Your task to perform on an android device: Open notification settings Image 0: 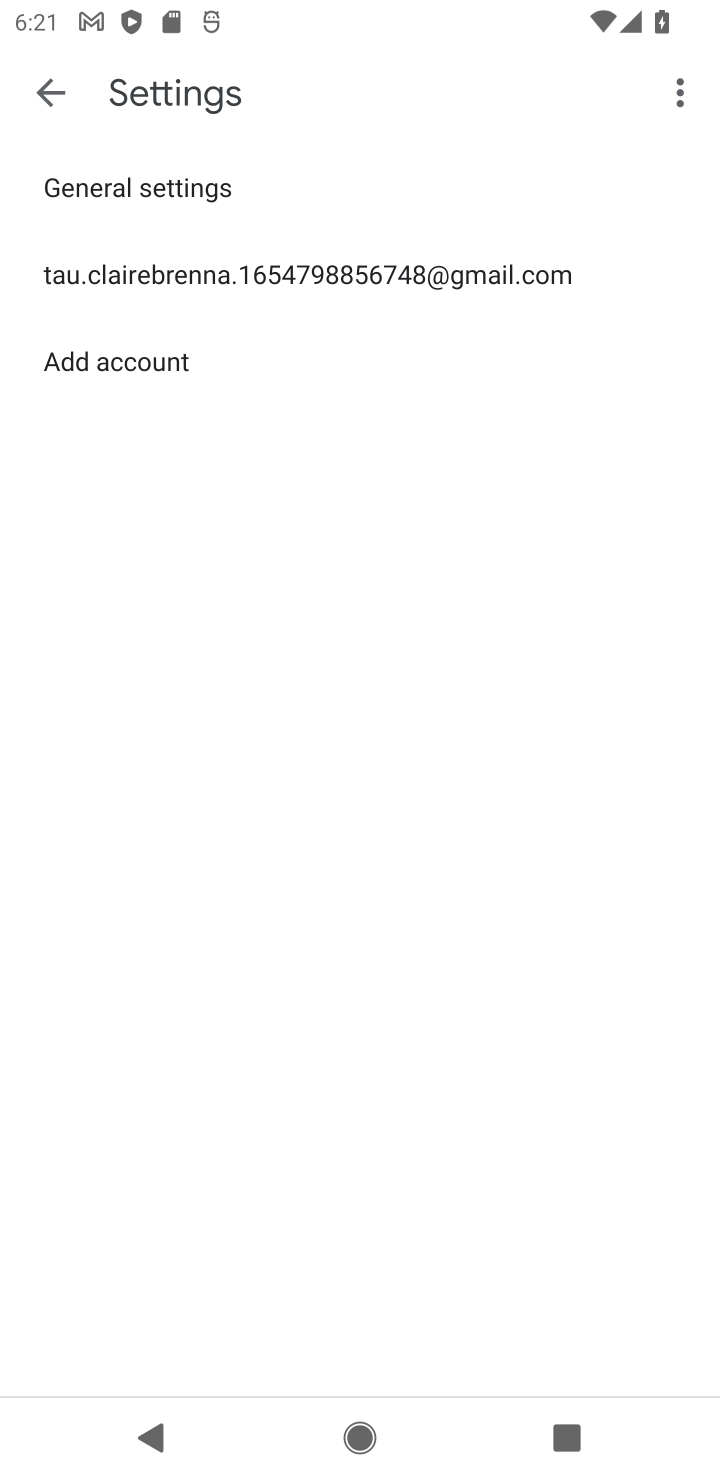
Step 0: press home button
Your task to perform on an android device: Open notification settings Image 1: 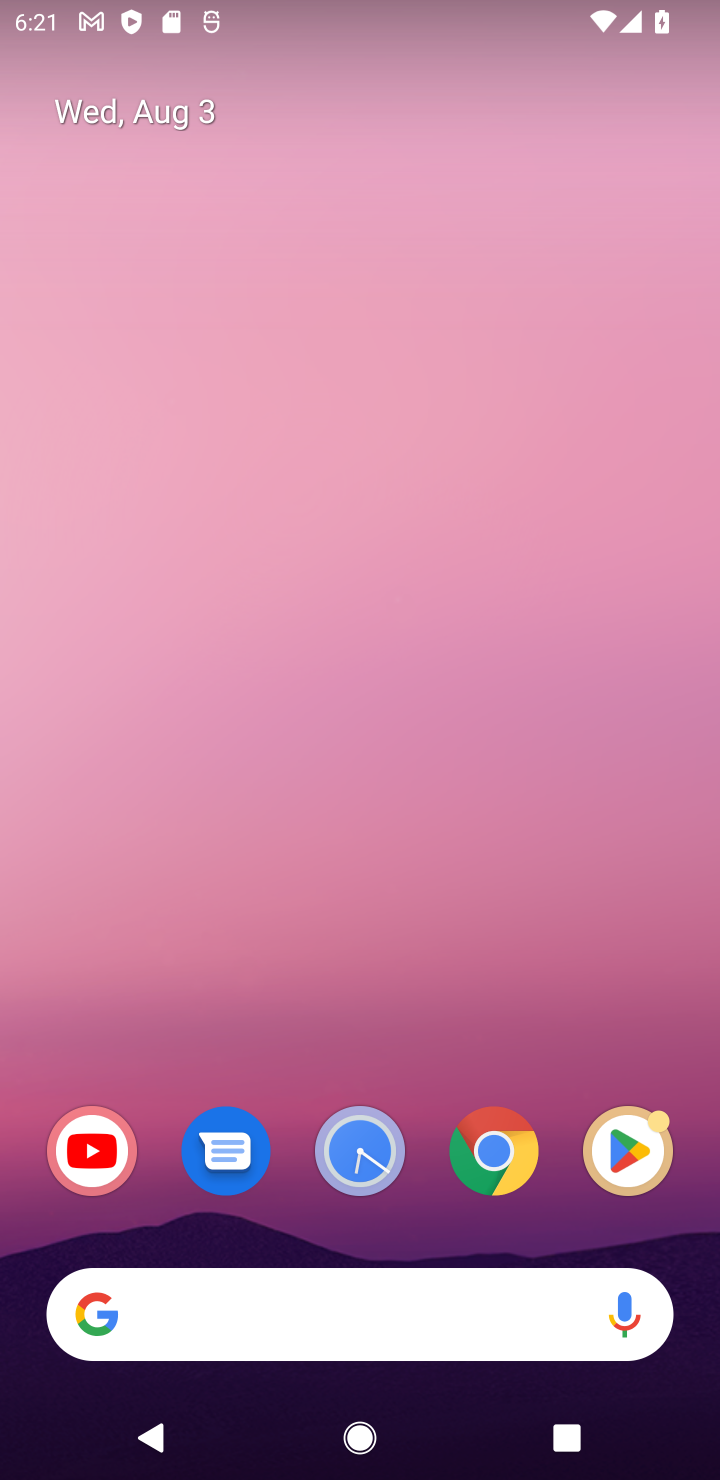
Step 1: drag from (579, 981) to (445, 80)
Your task to perform on an android device: Open notification settings Image 2: 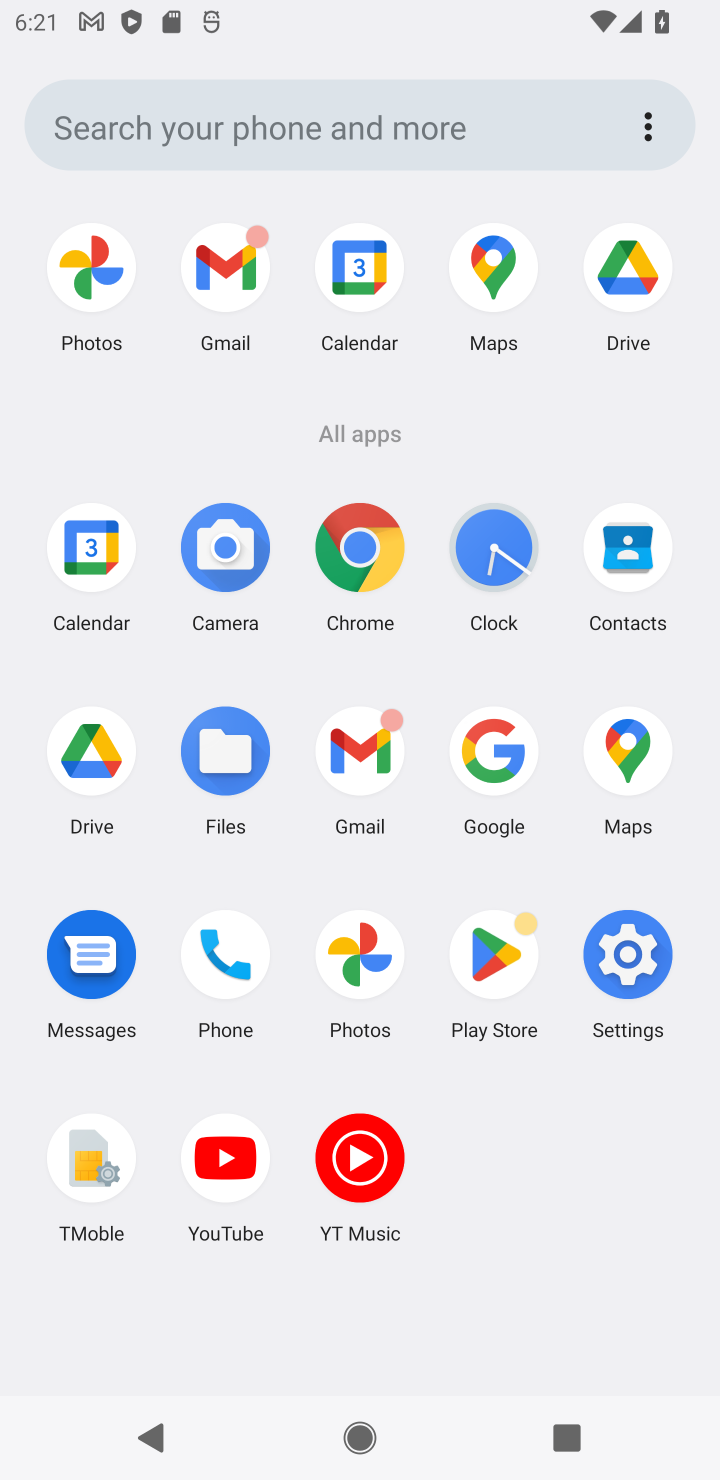
Step 2: click (649, 939)
Your task to perform on an android device: Open notification settings Image 3: 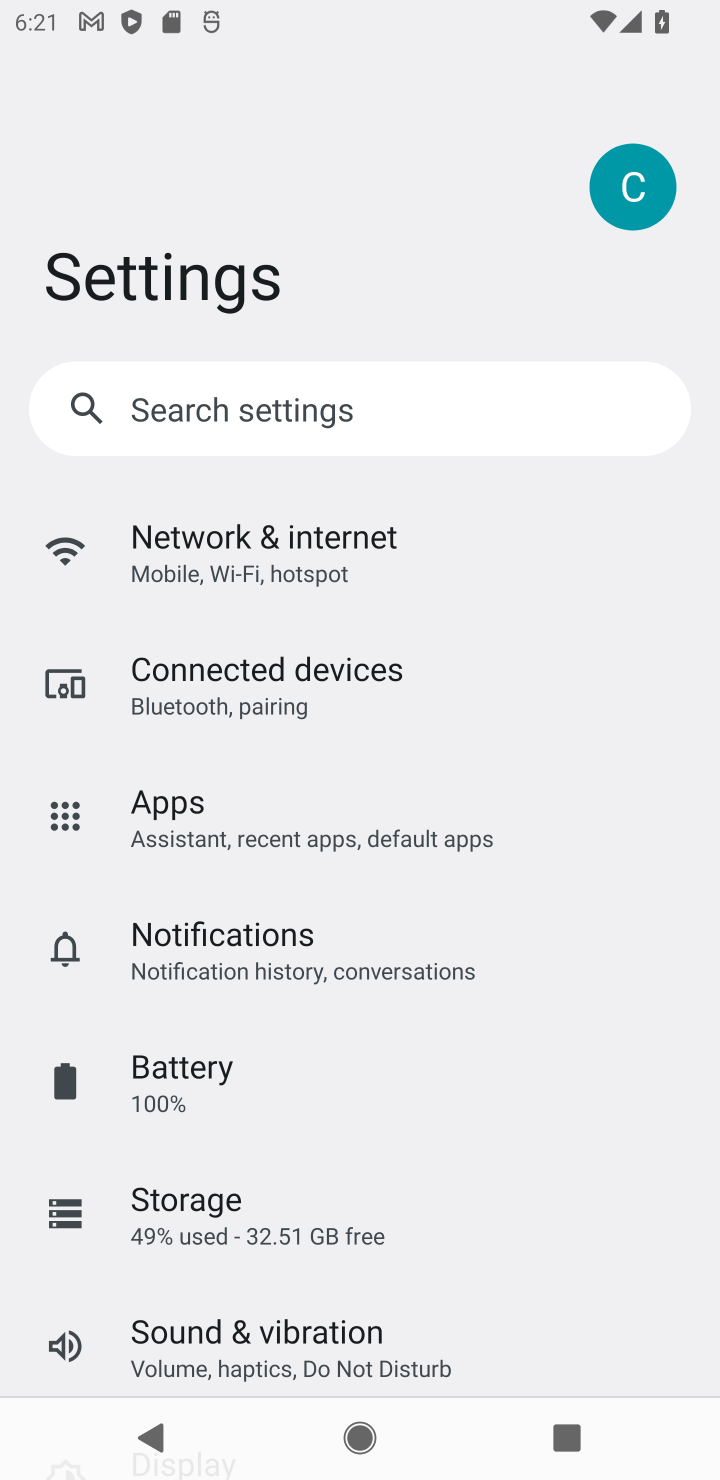
Step 3: click (211, 942)
Your task to perform on an android device: Open notification settings Image 4: 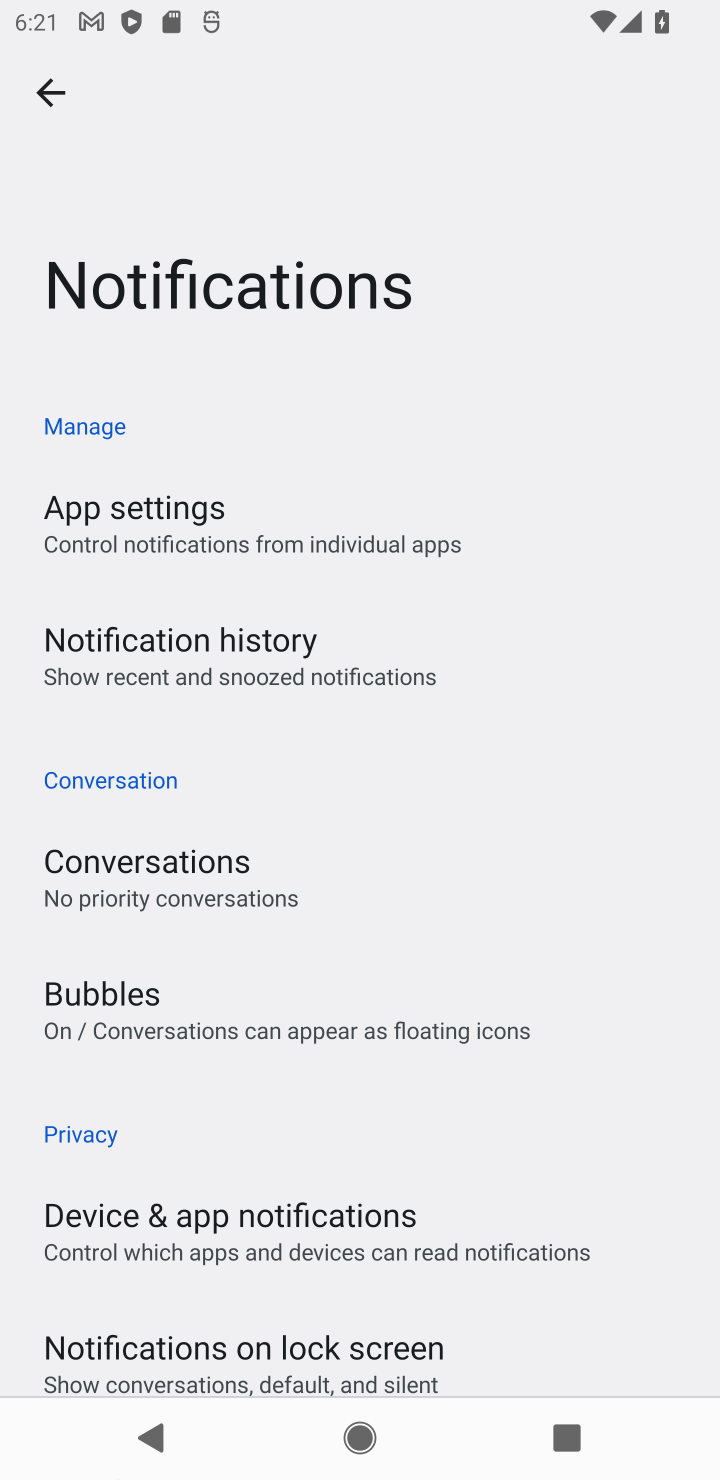
Step 4: drag from (292, 1143) to (213, 541)
Your task to perform on an android device: Open notification settings Image 5: 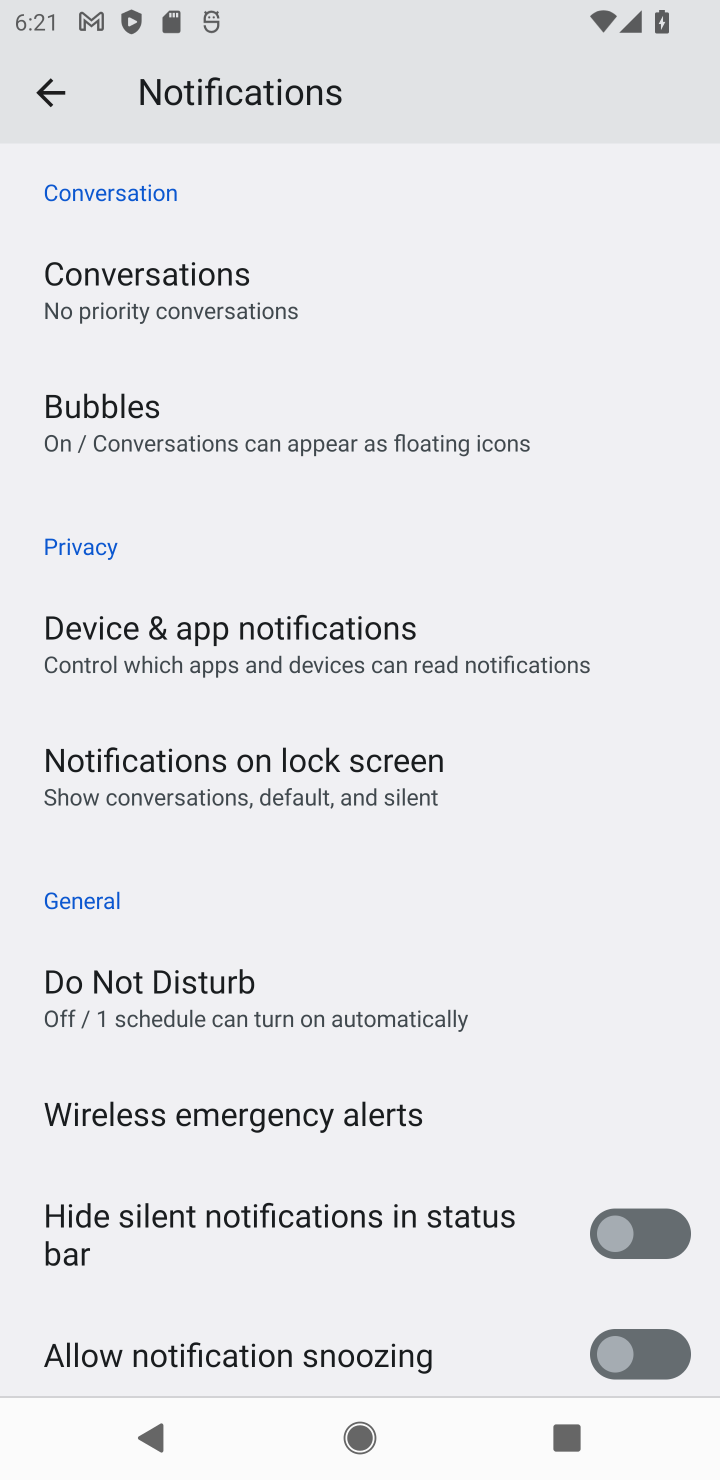
Step 5: click (631, 1249)
Your task to perform on an android device: Open notification settings Image 6: 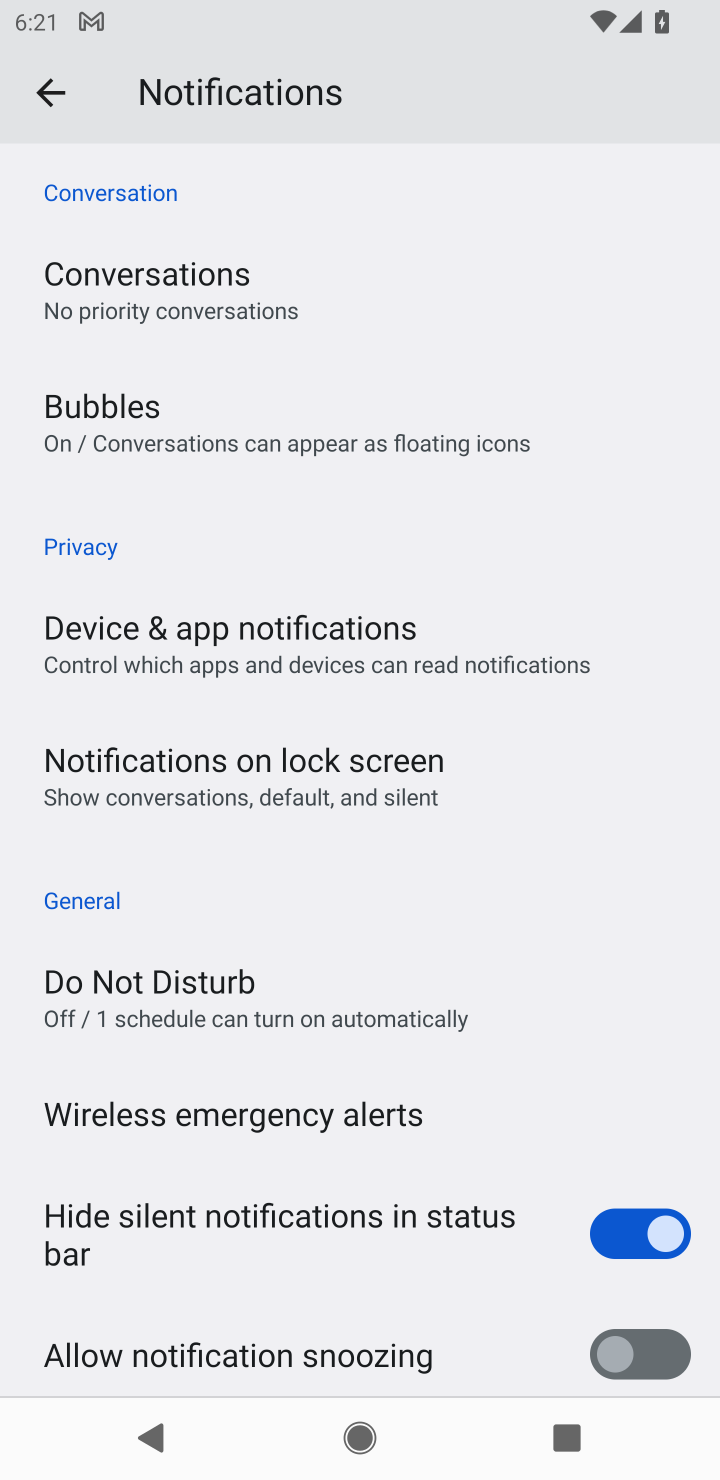
Step 6: task complete